Your task to perform on an android device: toggle data saver in the chrome app Image 0: 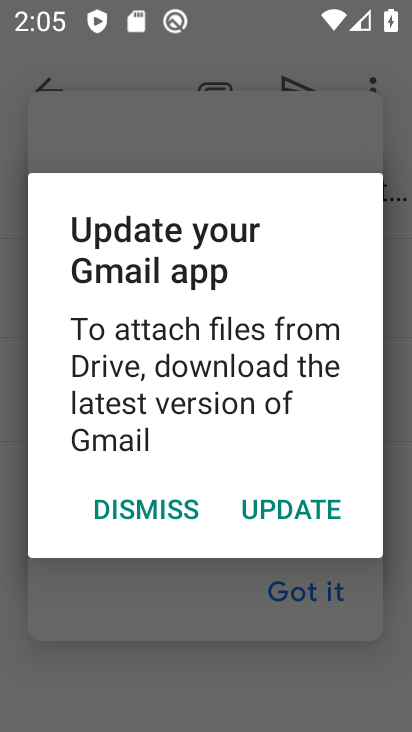
Step 0: press home button
Your task to perform on an android device: toggle data saver in the chrome app Image 1: 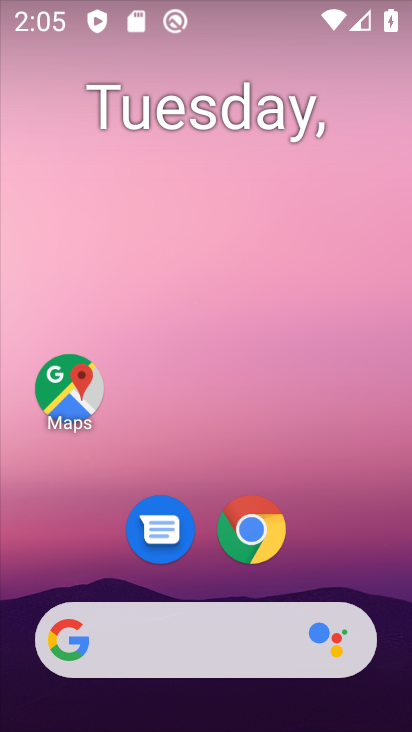
Step 1: click (248, 539)
Your task to perform on an android device: toggle data saver in the chrome app Image 2: 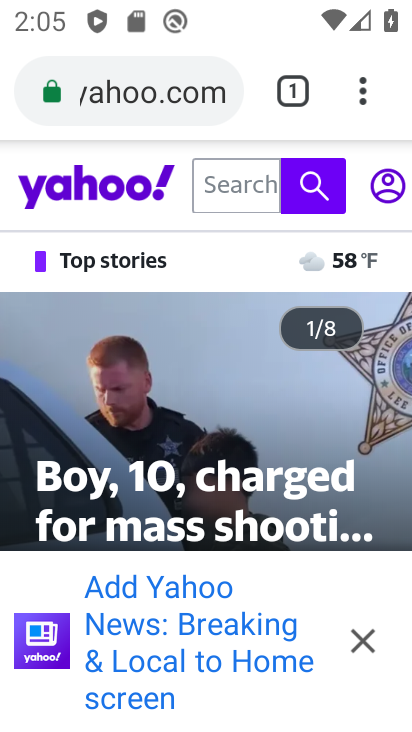
Step 2: click (363, 96)
Your task to perform on an android device: toggle data saver in the chrome app Image 3: 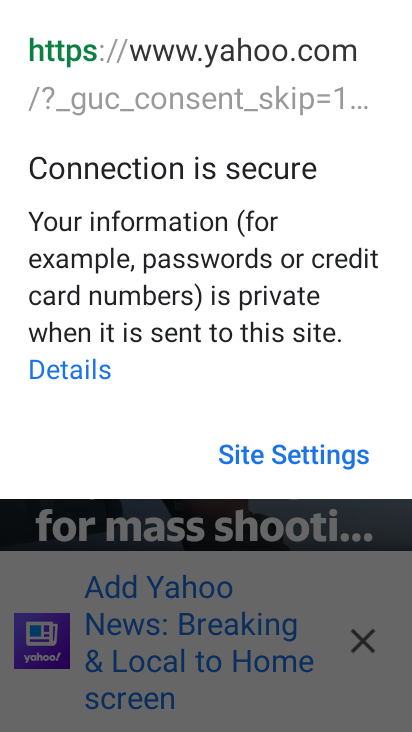
Step 3: click (112, 546)
Your task to perform on an android device: toggle data saver in the chrome app Image 4: 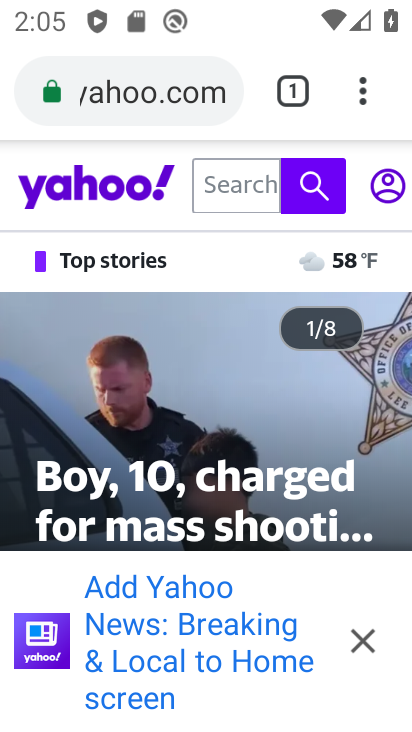
Step 4: click (354, 88)
Your task to perform on an android device: toggle data saver in the chrome app Image 5: 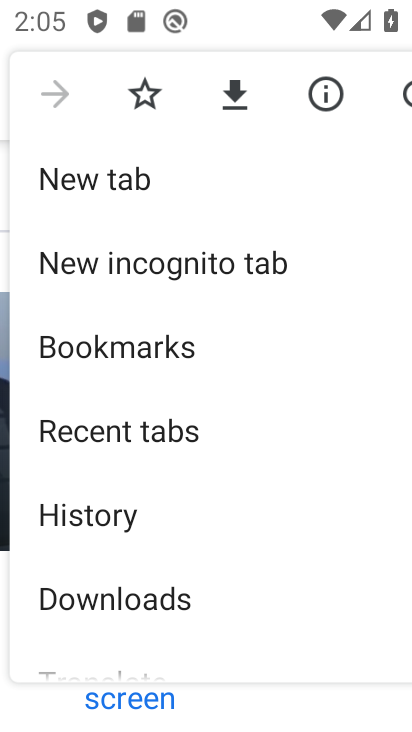
Step 5: drag from (244, 572) to (280, 165)
Your task to perform on an android device: toggle data saver in the chrome app Image 6: 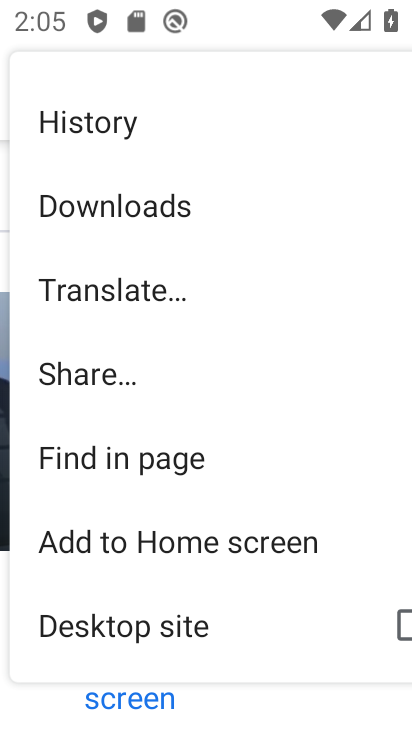
Step 6: drag from (161, 586) to (206, 191)
Your task to perform on an android device: toggle data saver in the chrome app Image 7: 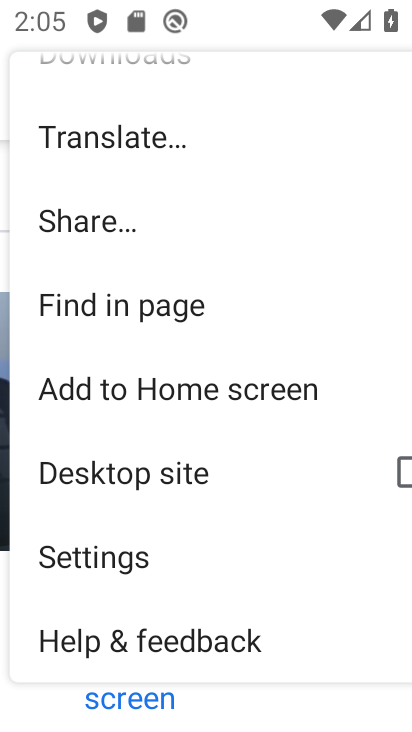
Step 7: click (181, 557)
Your task to perform on an android device: toggle data saver in the chrome app Image 8: 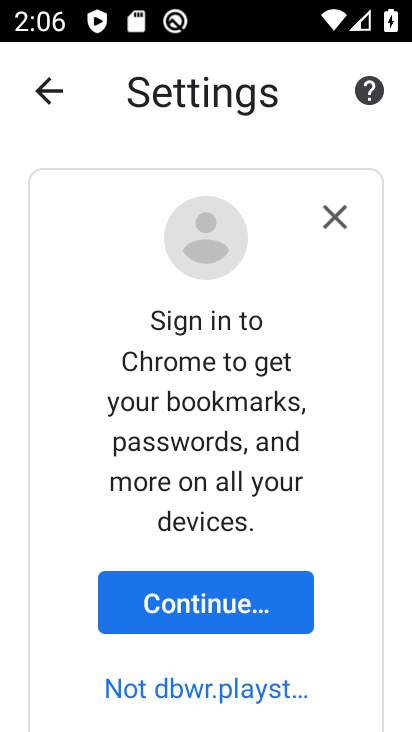
Step 8: click (336, 210)
Your task to perform on an android device: toggle data saver in the chrome app Image 9: 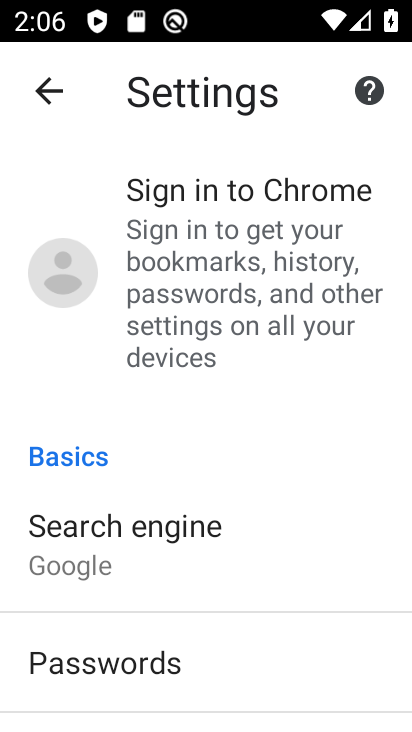
Step 9: drag from (103, 717) to (234, 162)
Your task to perform on an android device: toggle data saver in the chrome app Image 10: 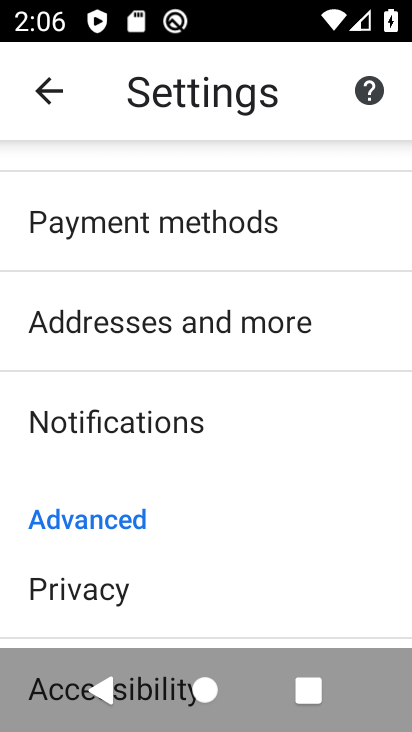
Step 10: drag from (207, 533) to (218, 128)
Your task to perform on an android device: toggle data saver in the chrome app Image 11: 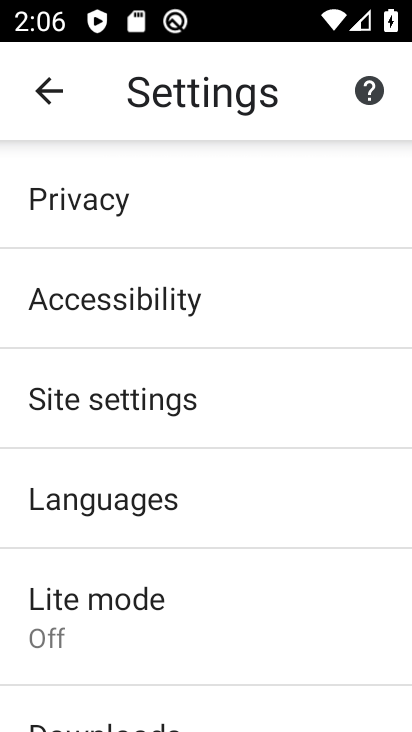
Step 11: click (109, 602)
Your task to perform on an android device: toggle data saver in the chrome app Image 12: 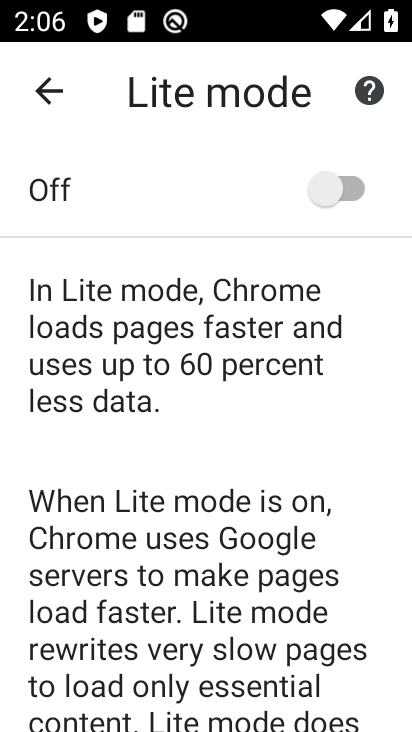
Step 12: click (348, 209)
Your task to perform on an android device: toggle data saver in the chrome app Image 13: 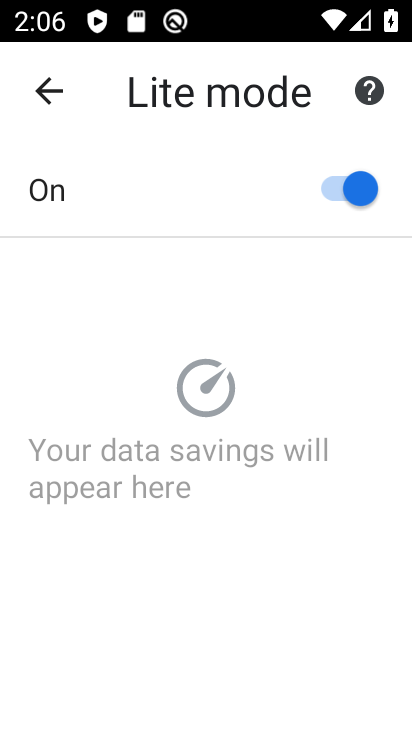
Step 13: task complete